Your task to perform on an android device: open a bookmark in the chrome app Image 0: 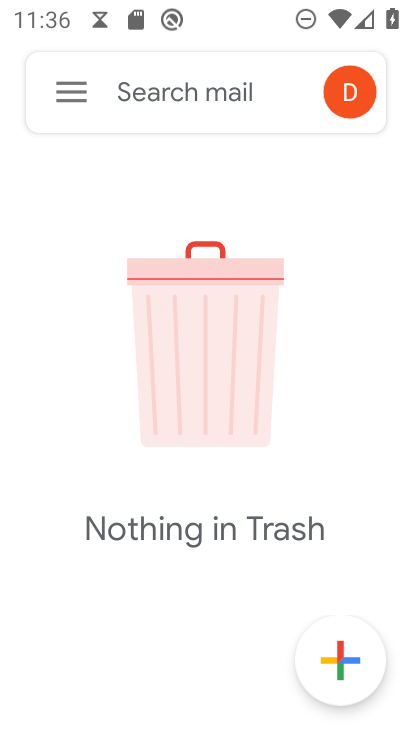
Step 0: press home button
Your task to perform on an android device: open a bookmark in the chrome app Image 1: 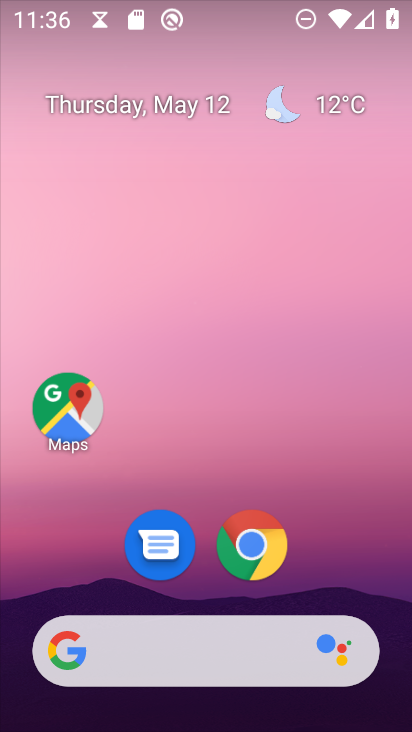
Step 1: click (250, 546)
Your task to perform on an android device: open a bookmark in the chrome app Image 2: 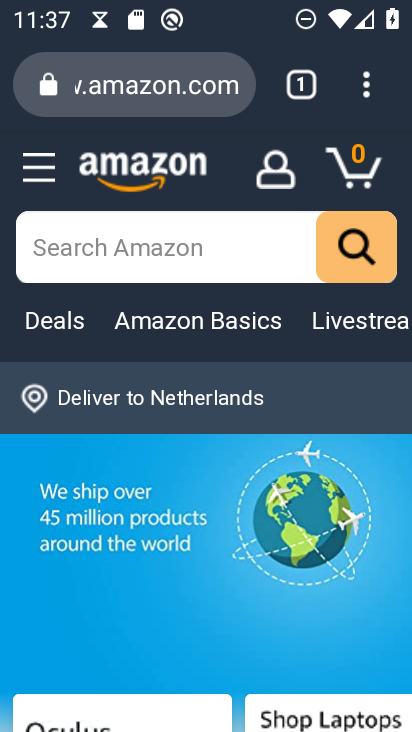
Step 2: click (372, 81)
Your task to perform on an android device: open a bookmark in the chrome app Image 3: 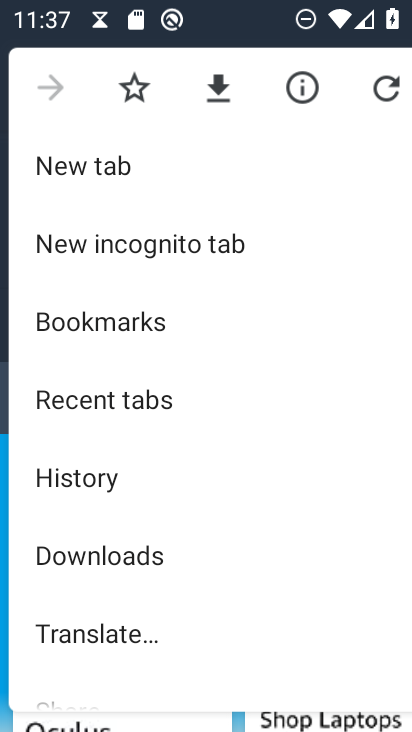
Step 3: click (175, 319)
Your task to perform on an android device: open a bookmark in the chrome app Image 4: 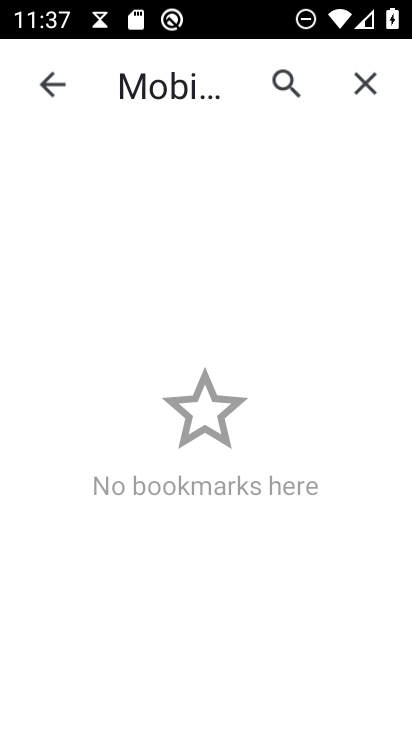
Step 4: task complete